Your task to perform on an android device: check battery use Image 0: 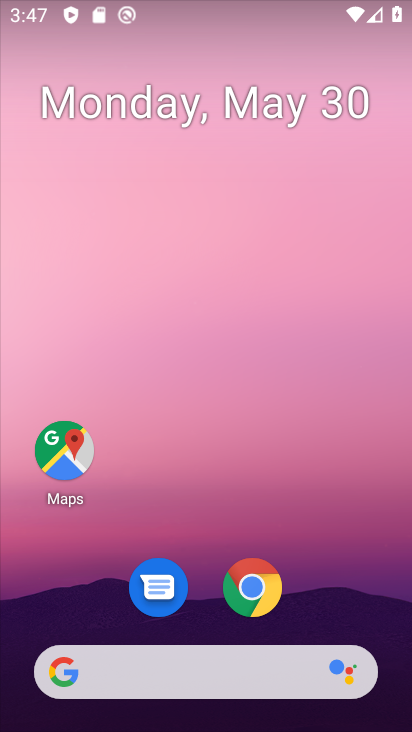
Step 0: drag from (318, 699) to (376, 310)
Your task to perform on an android device: check battery use Image 1: 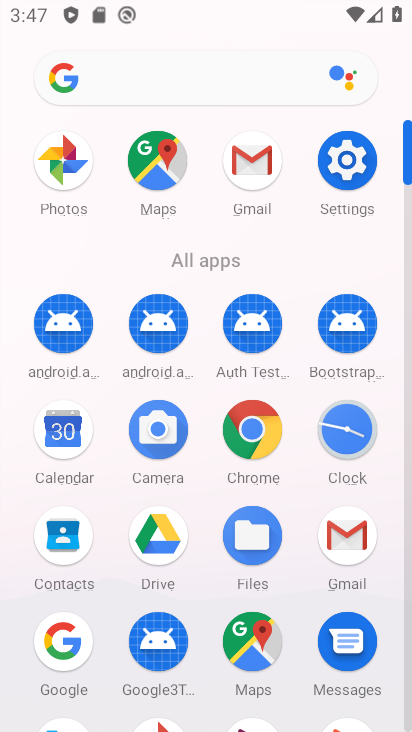
Step 1: click (360, 163)
Your task to perform on an android device: check battery use Image 2: 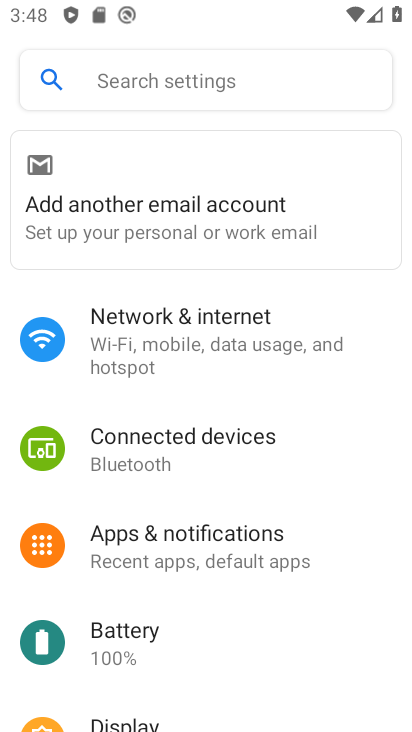
Step 2: click (135, 79)
Your task to perform on an android device: check battery use Image 3: 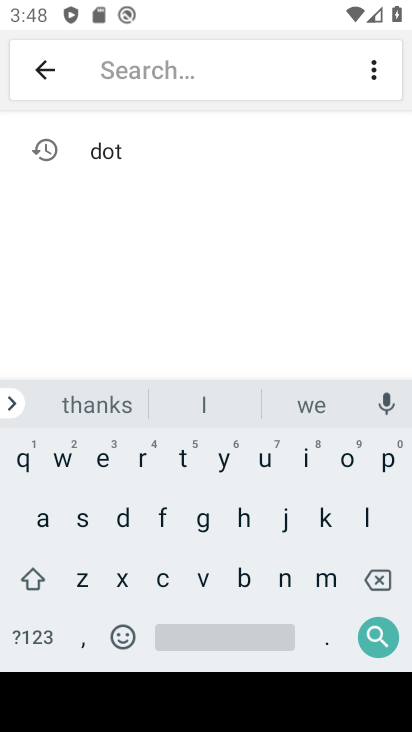
Step 3: click (37, 68)
Your task to perform on an android device: check battery use Image 4: 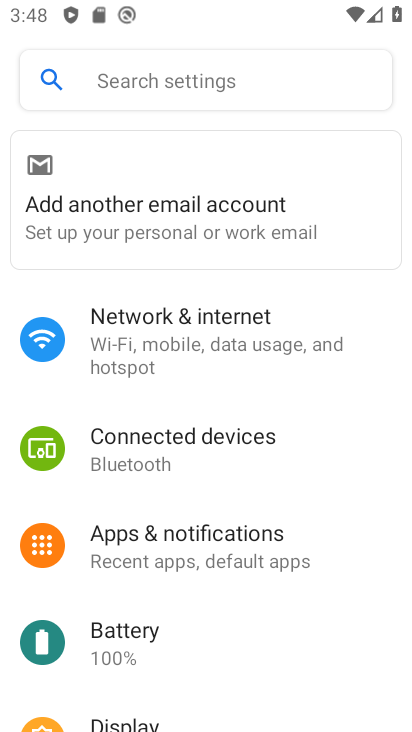
Step 4: click (128, 614)
Your task to perform on an android device: check battery use Image 5: 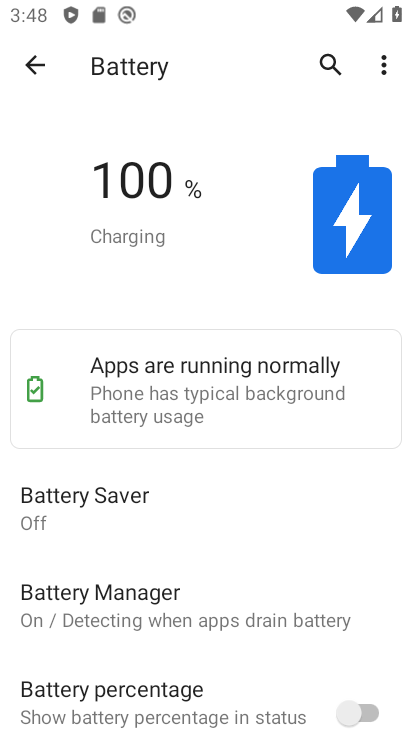
Step 5: task complete